Your task to perform on an android device: turn off picture-in-picture Image 0: 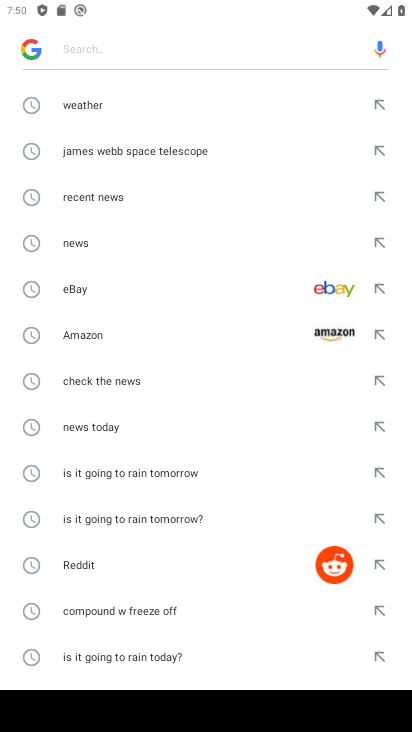
Step 0: press back button
Your task to perform on an android device: turn off picture-in-picture Image 1: 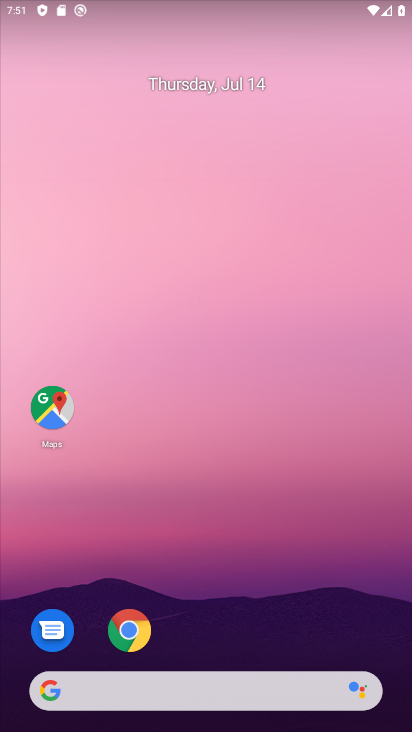
Step 1: drag from (310, 371) to (271, 48)
Your task to perform on an android device: turn off picture-in-picture Image 2: 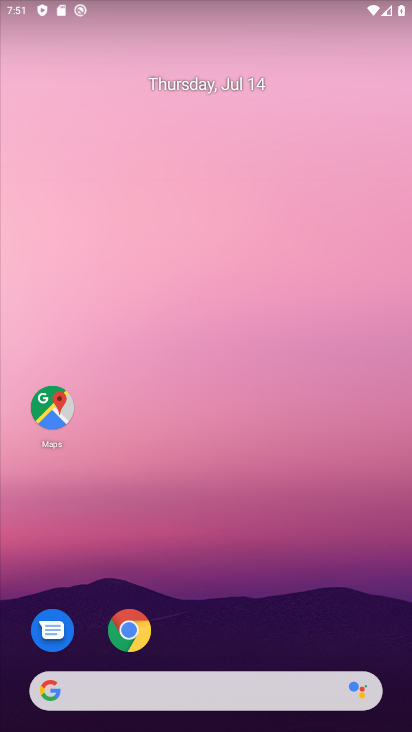
Step 2: click (116, 85)
Your task to perform on an android device: turn off picture-in-picture Image 3: 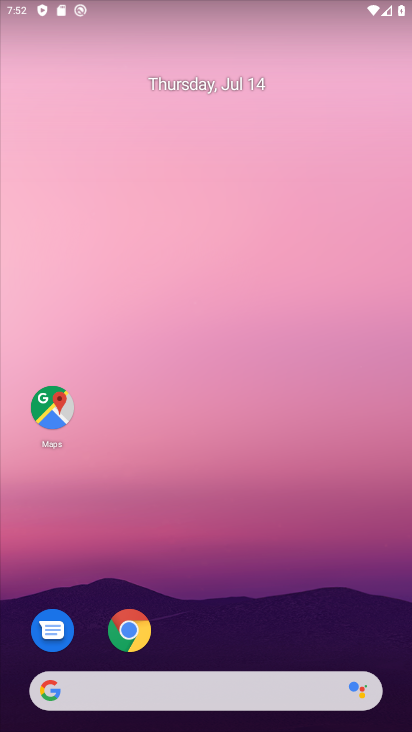
Step 3: click (144, 623)
Your task to perform on an android device: turn off picture-in-picture Image 4: 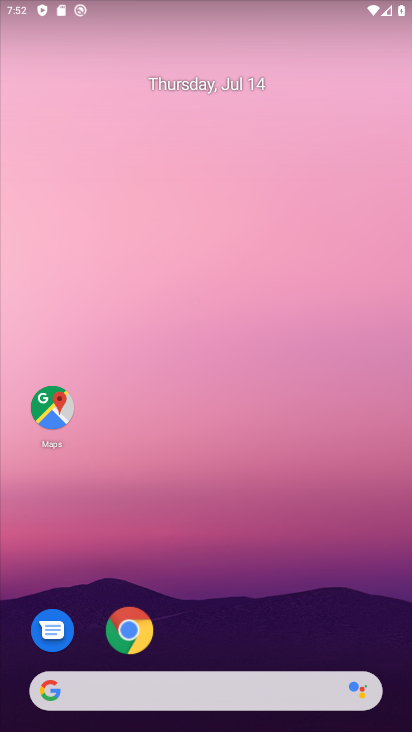
Step 4: click (144, 623)
Your task to perform on an android device: turn off picture-in-picture Image 5: 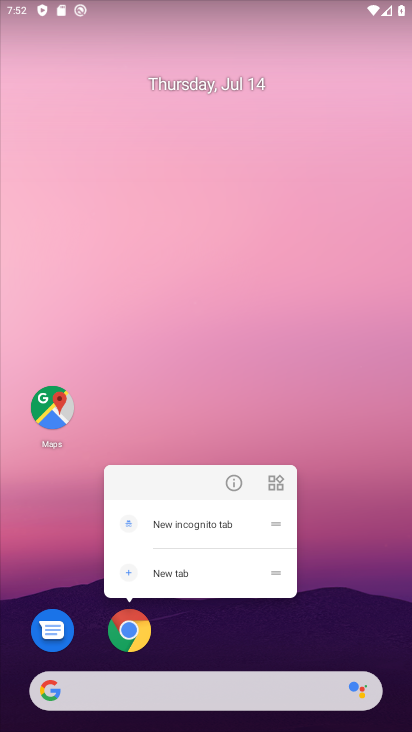
Step 5: click (136, 626)
Your task to perform on an android device: turn off picture-in-picture Image 6: 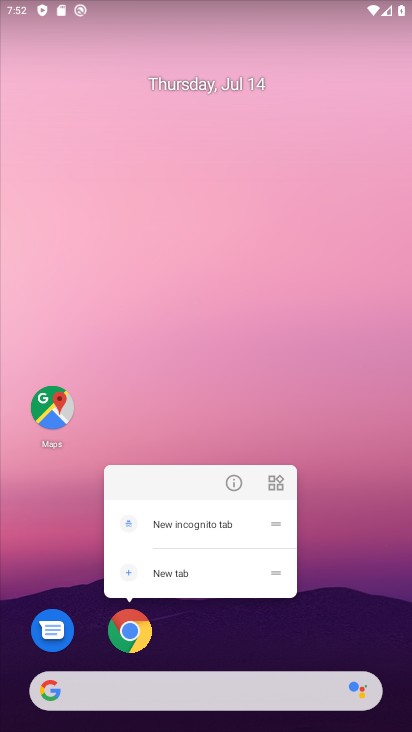
Step 6: click (135, 626)
Your task to perform on an android device: turn off picture-in-picture Image 7: 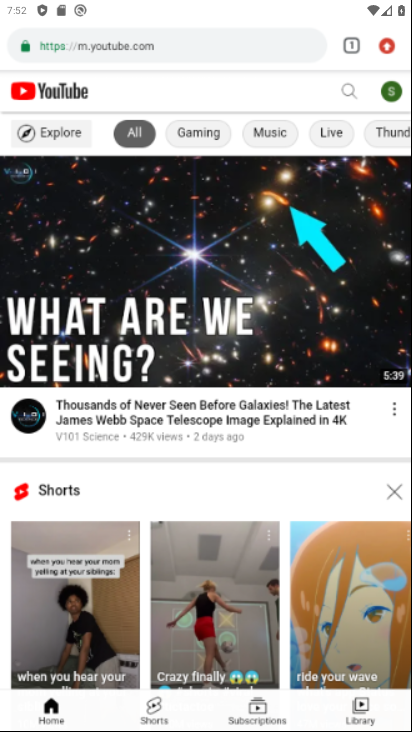
Step 7: press back button
Your task to perform on an android device: turn off picture-in-picture Image 8: 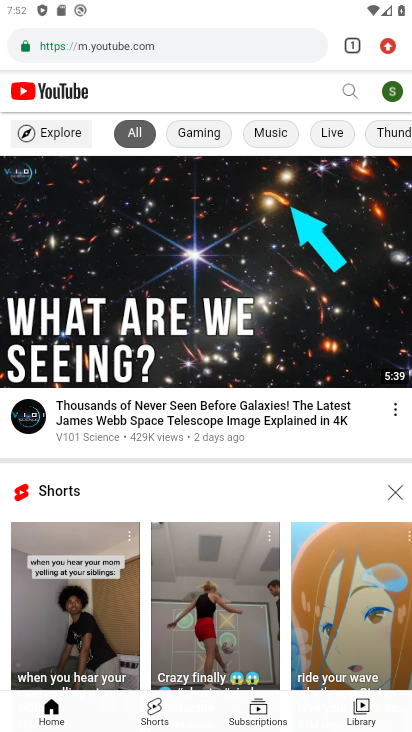
Step 8: press back button
Your task to perform on an android device: turn off picture-in-picture Image 9: 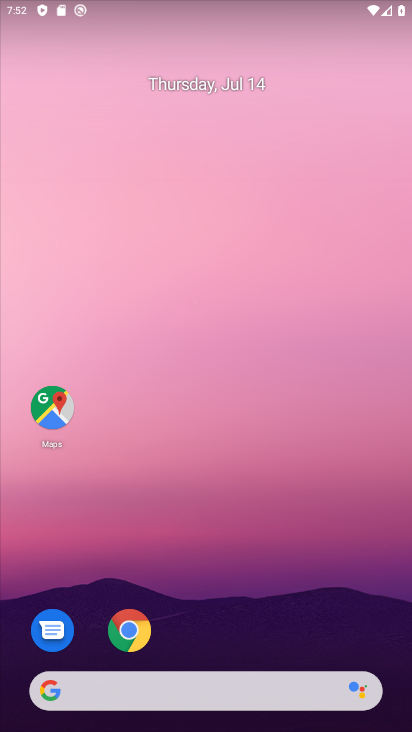
Step 9: drag from (234, 629) to (152, 205)
Your task to perform on an android device: turn off picture-in-picture Image 10: 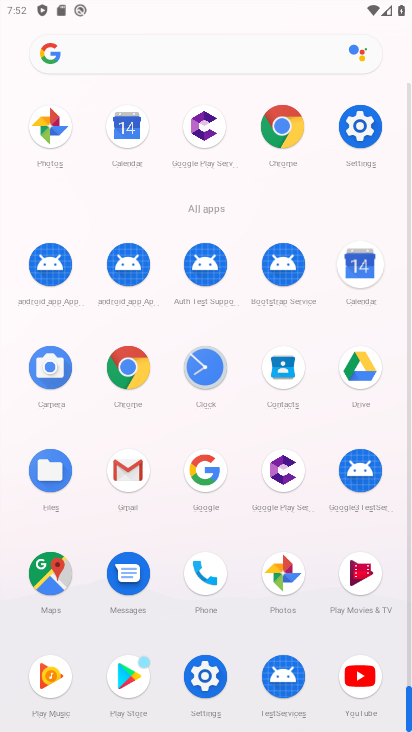
Step 10: click (292, 124)
Your task to perform on an android device: turn off picture-in-picture Image 11: 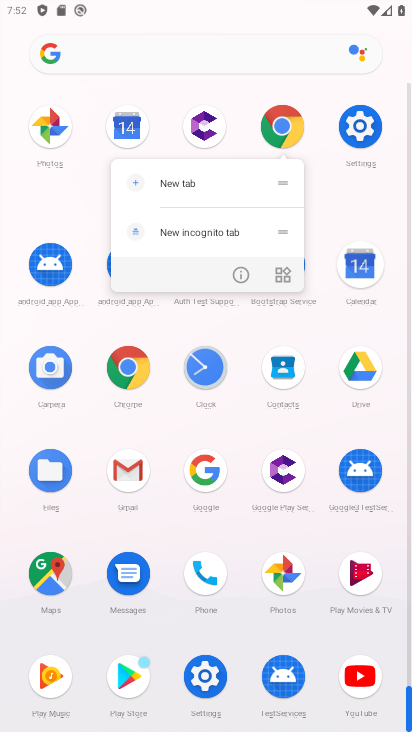
Step 11: click (241, 269)
Your task to perform on an android device: turn off picture-in-picture Image 12: 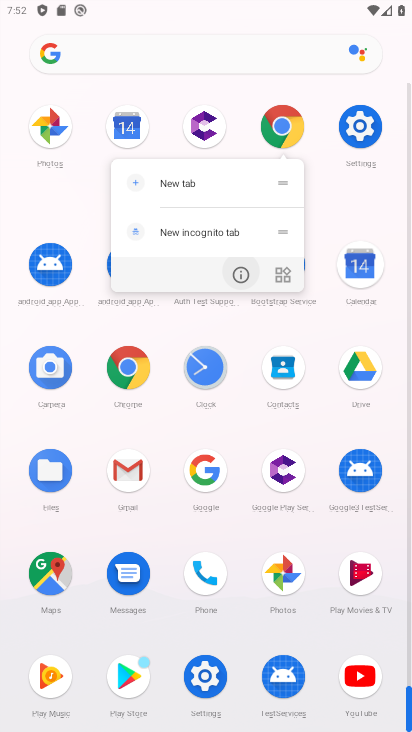
Step 12: click (240, 269)
Your task to perform on an android device: turn off picture-in-picture Image 13: 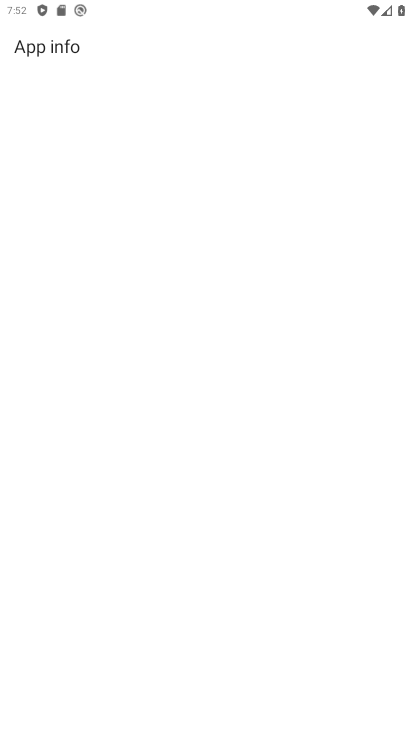
Step 13: click (238, 270)
Your task to perform on an android device: turn off picture-in-picture Image 14: 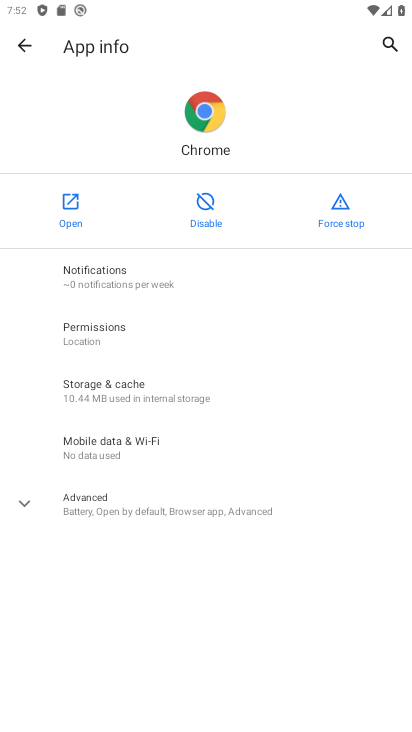
Step 14: click (102, 508)
Your task to perform on an android device: turn off picture-in-picture Image 15: 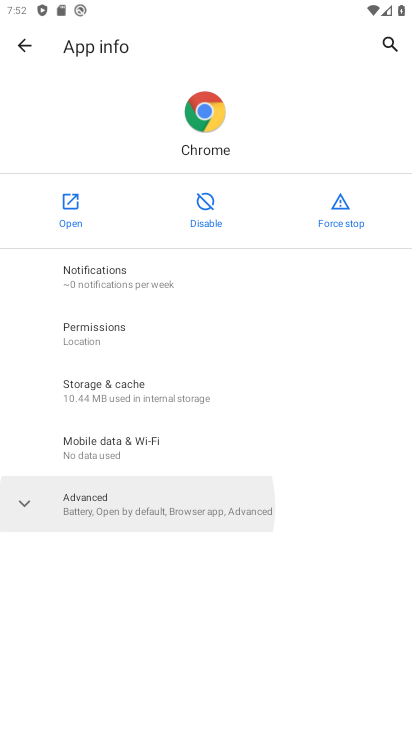
Step 15: click (102, 508)
Your task to perform on an android device: turn off picture-in-picture Image 16: 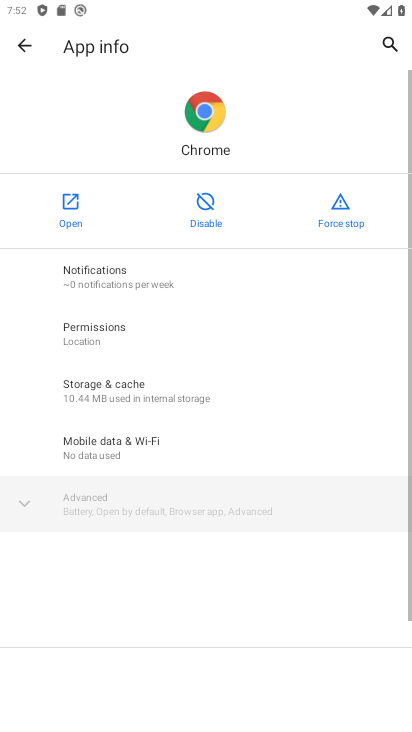
Step 16: click (102, 510)
Your task to perform on an android device: turn off picture-in-picture Image 17: 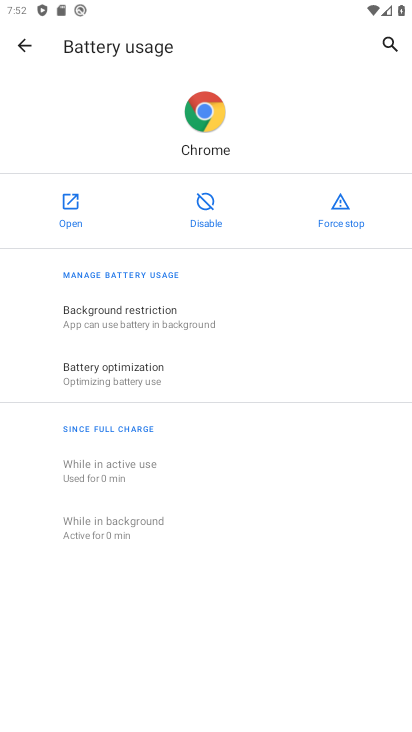
Step 17: click (23, 45)
Your task to perform on an android device: turn off picture-in-picture Image 18: 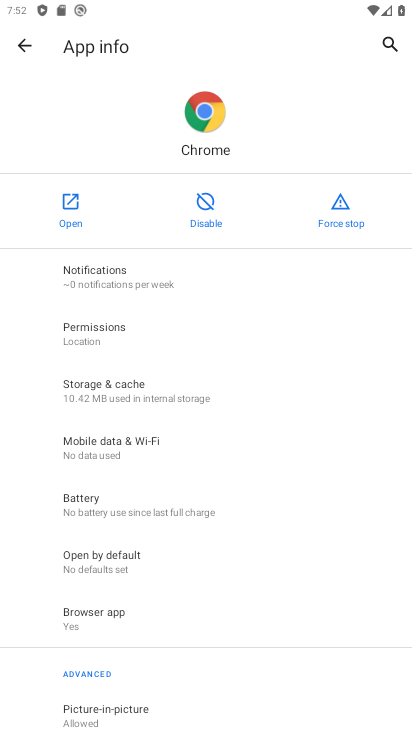
Step 18: click (88, 702)
Your task to perform on an android device: turn off picture-in-picture Image 19: 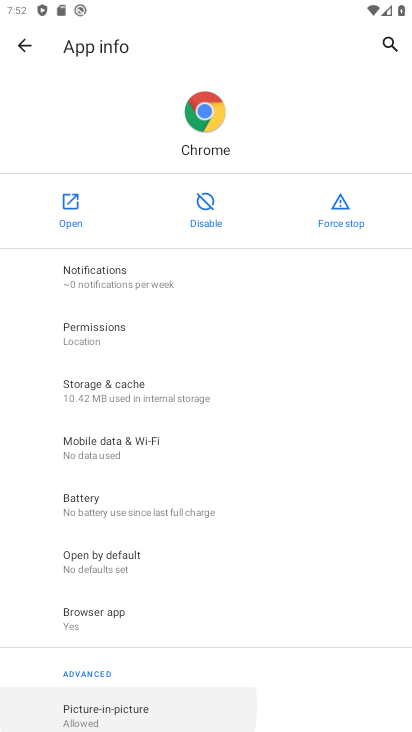
Step 19: click (89, 701)
Your task to perform on an android device: turn off picture-in-picture Image 20: 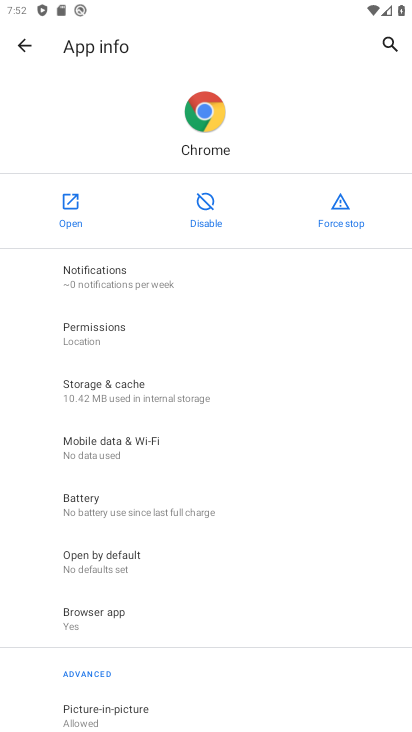
Step 20: click (92, 708)
Your task to perform on an android device: turn off picture-in-picture Image 21: 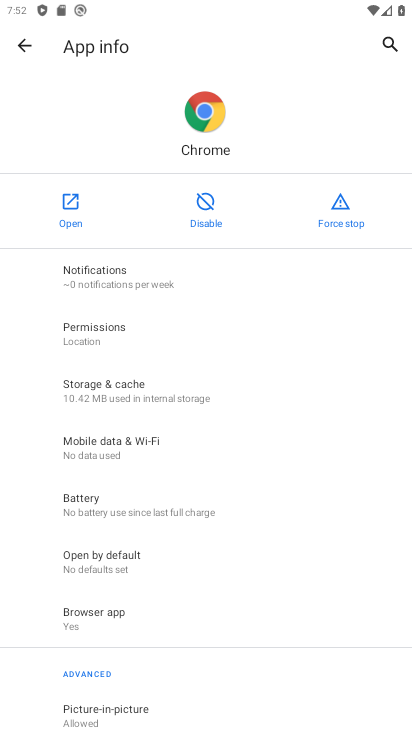
Step 21: click (93, 711)
Your task to perform on an android device: turn off picture-in-picture Image 22: 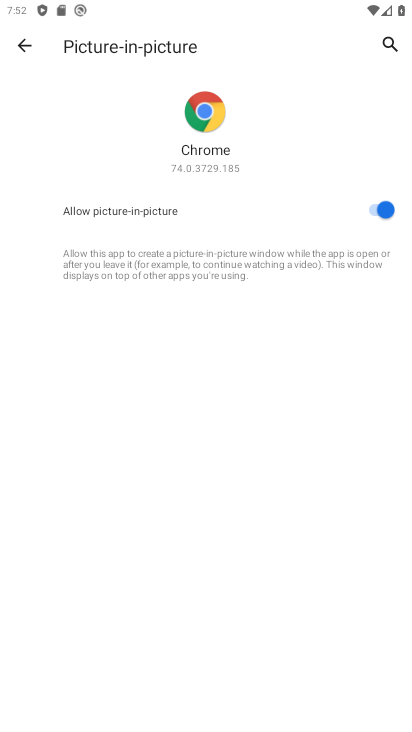
Step 22: click (386, 208)
Your task to perform on an android device: turn off picture-in-picture Image 23: 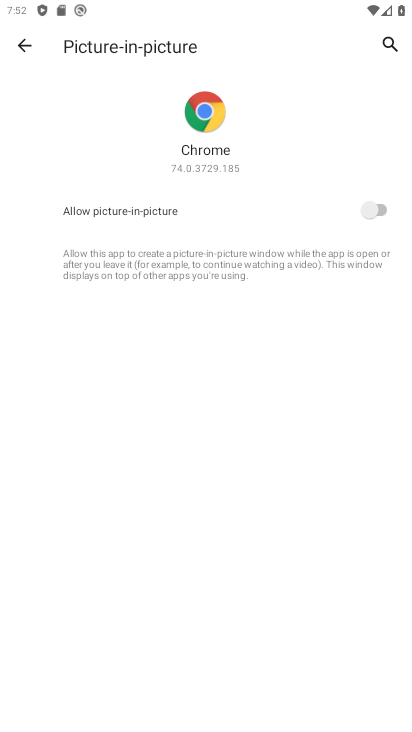
Step 23: task complete